Your task to perform on an android device: What's the weather? Image 0: 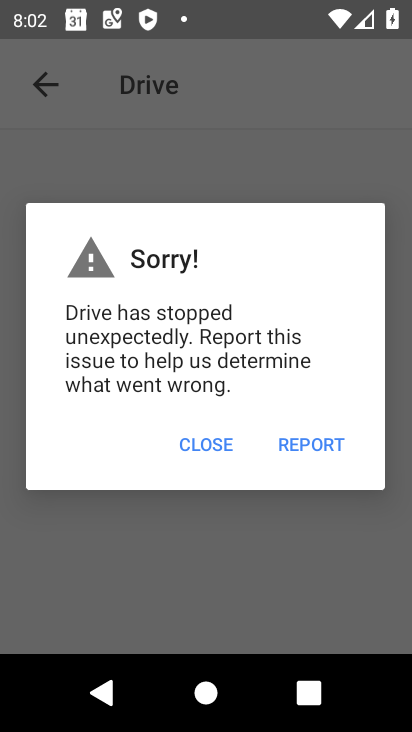
Step 0: press home button
Your task to perform on an android device: What's the weather? Image 1: 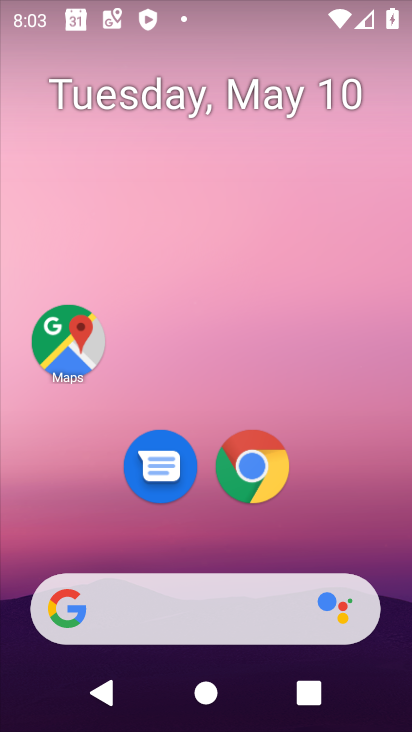
Step 1: drag from (310, 525) to (288, 3)
Your task to perform on an android device: What's the weather? Image 2: 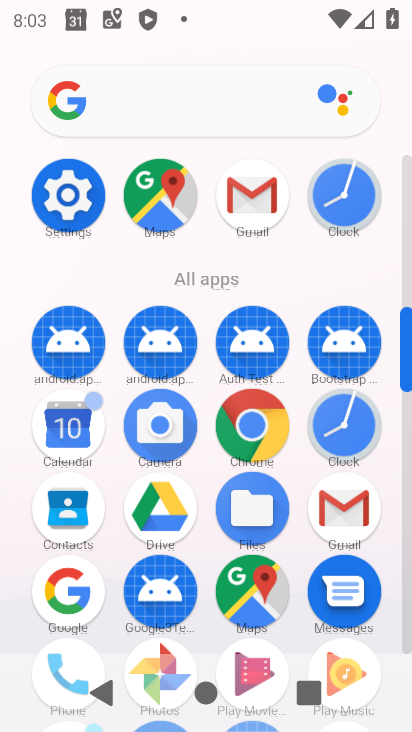
Step 2: click (215, 77)
Your task to perform on an android device: What's the weather? Image 3: 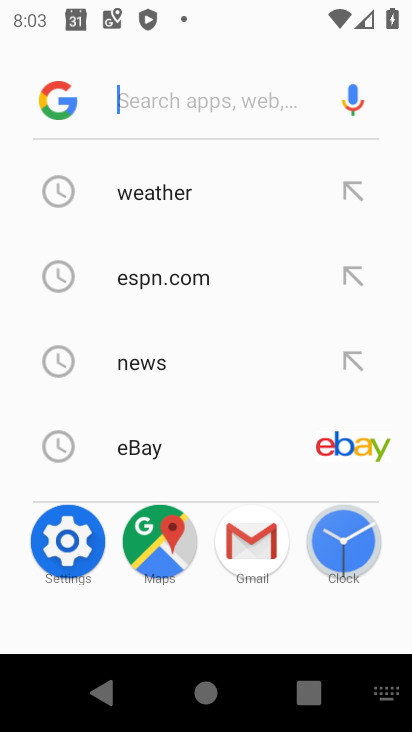
Step 3: type "what's the weather"
Your task to perform on an android device: What's the weather? Image 4: 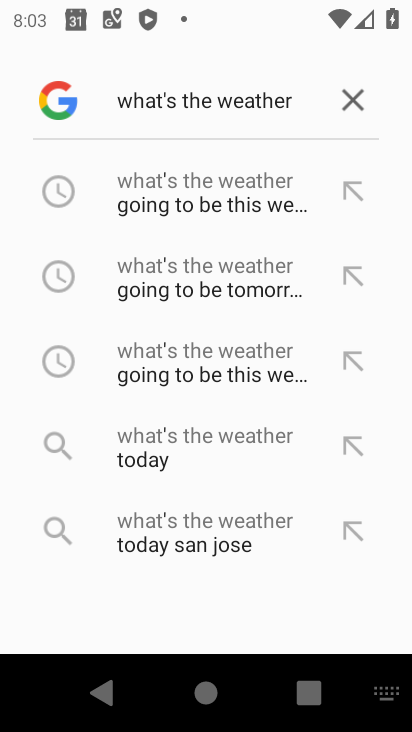
Step 4: type "?"
Your task to perform on an android device: What's the weather? Image 5: 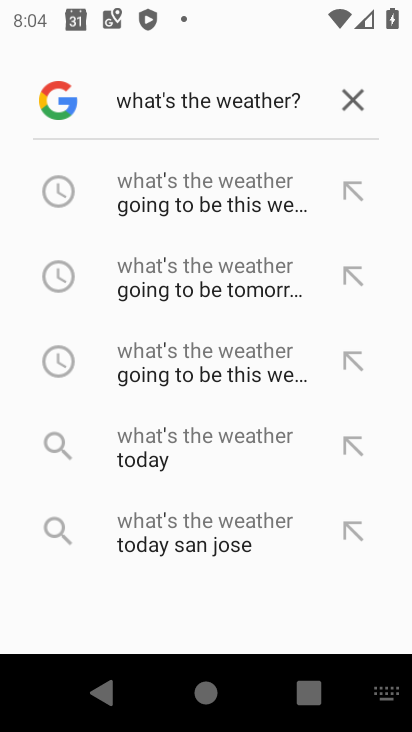
Step 5: click (173, 439)
Your task to perform on an android device: What's the weather? Image 6: 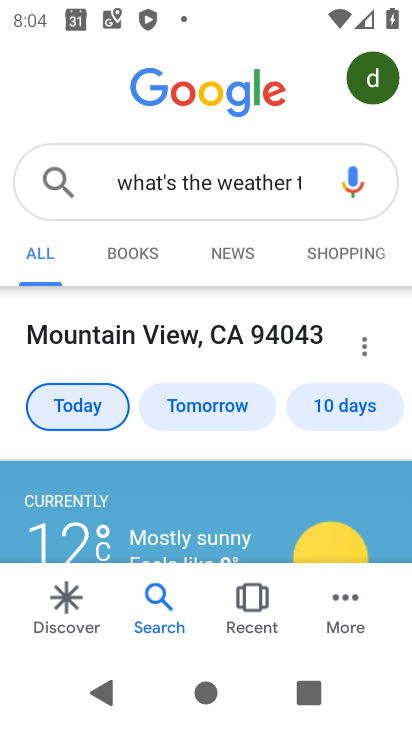
Step 6: task complete